Your task to perform on an android device: When is my next appointment? Image 0: 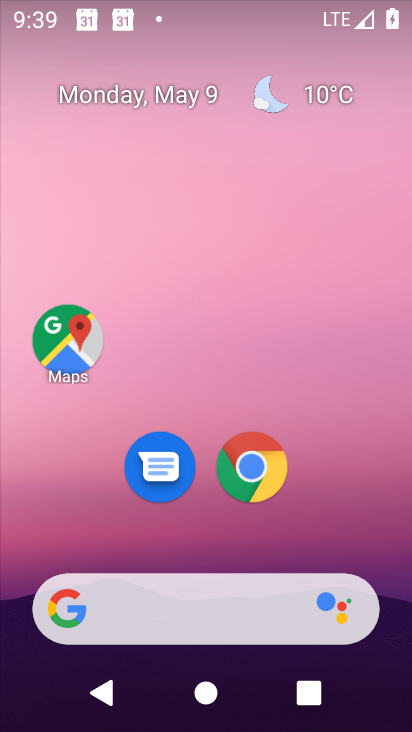
Step 0: drag from (343, 464) to (307, 16)
Your task to perform on an android device: When is my next appointment? Image 1: 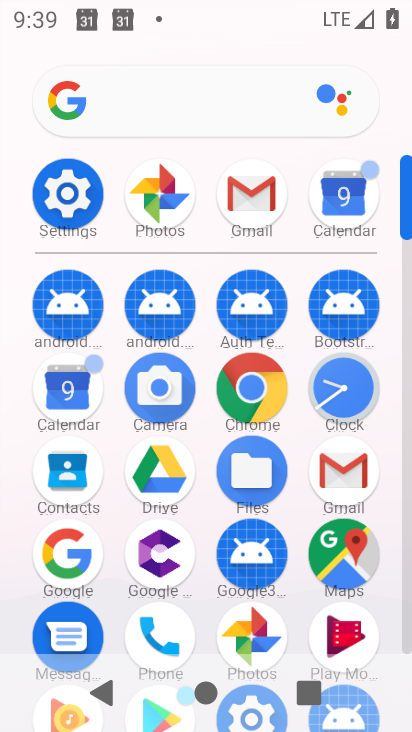
Step 1: click (347, 193)
Your task to perform on an android device: When is my next appointment? Image 2: 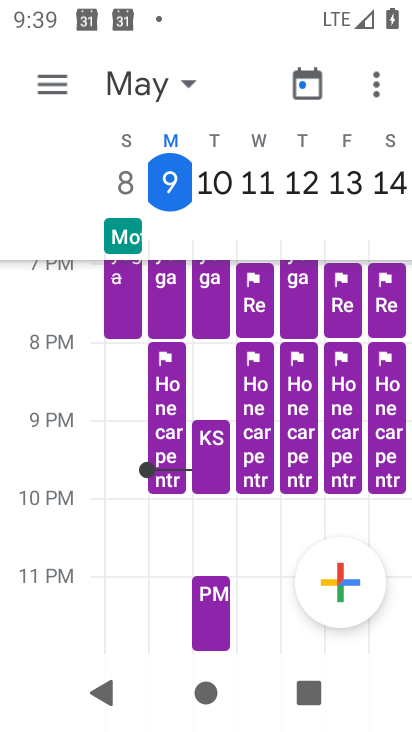
Step 2: click (28, 78)
Your task to perform on an android device: When is my next appointment? Image 3: 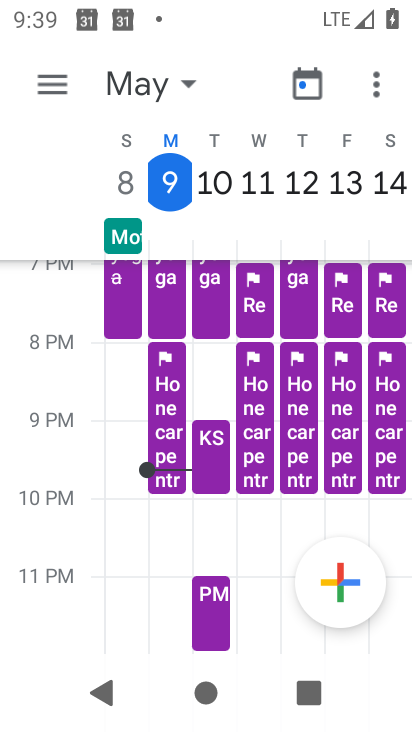
Step 3: click (47, 82)
Your task to perform on an android device: When is my next appointment? Image 4: 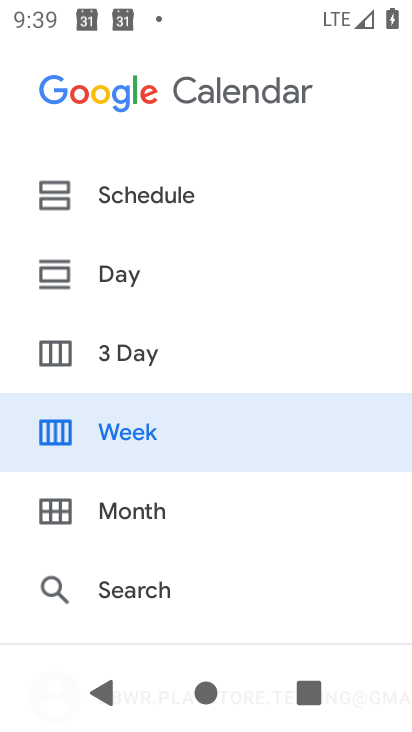
Step 4: click (80, 182)
Your task to perform on an android device: When is my next appointment? Image 5: 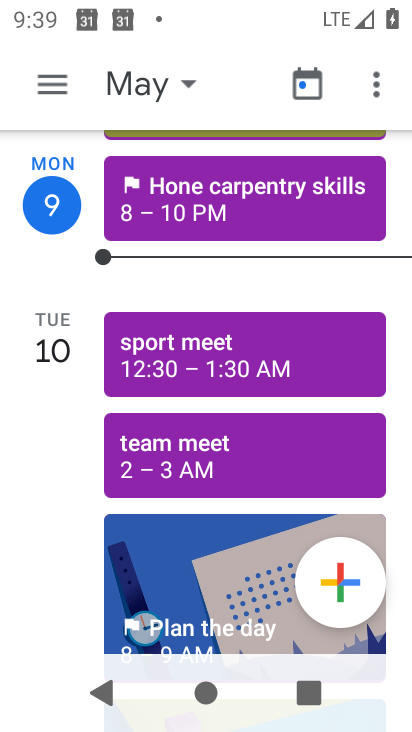
Step 5: click (203, 353)
Your task to perform on an android device: When is my next appointment? Image 6: 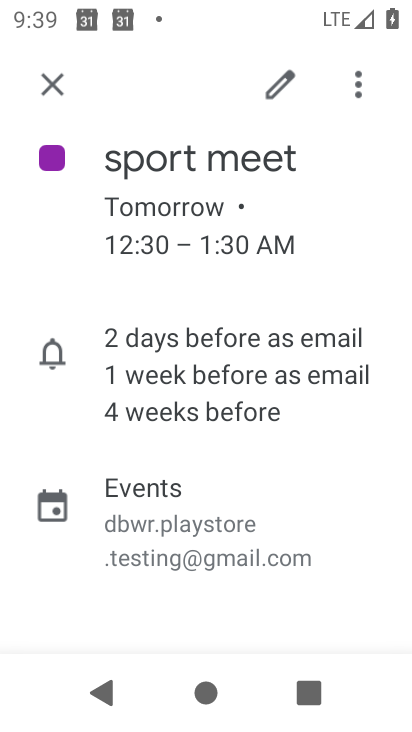
Step 6: task complete